Your task to perform on an android device: toggle improve location accuracy Image 0: 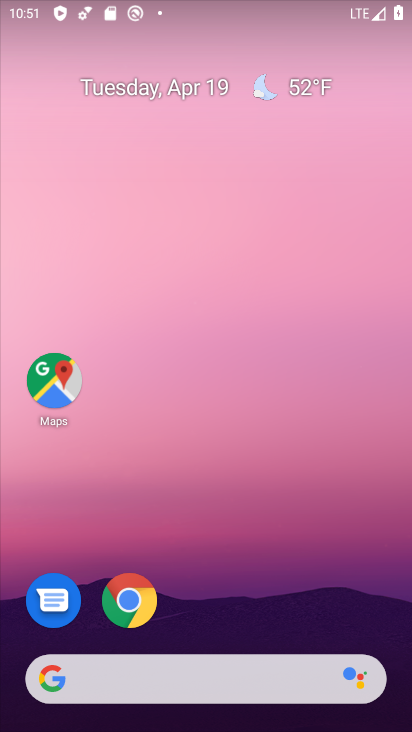
Step 0: drag from (325, 608) to (160, 39)
Your task to perform on an android device: toggle improve location accuracy Image 1: 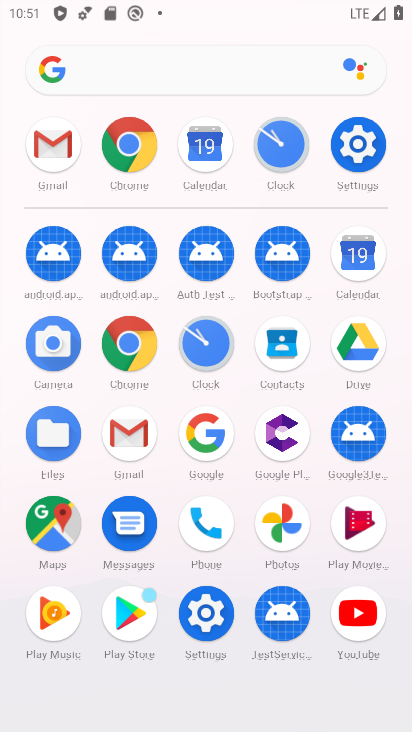
Step 1: click (362, 147)
Your task to perform on an android device: toggle improve location accuracy Image 2: 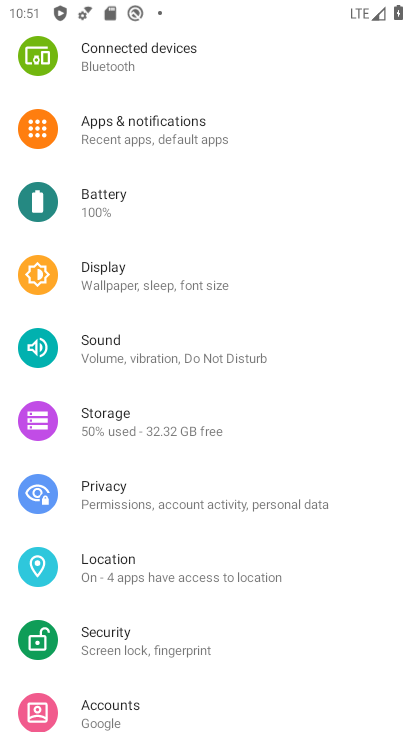
Step 2: click (174, 565)
Your task to perform on an android device: toggle improve location accuracy Image 3: 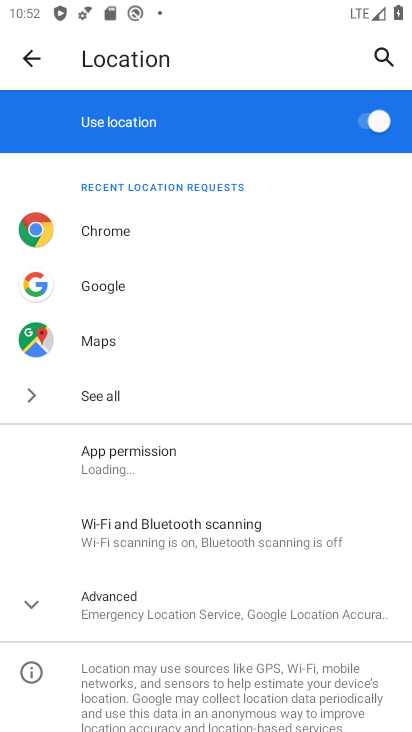
Step 3: click (126, 596)
Your task to perform on an android device: toggle improve location accuracy Image 4: 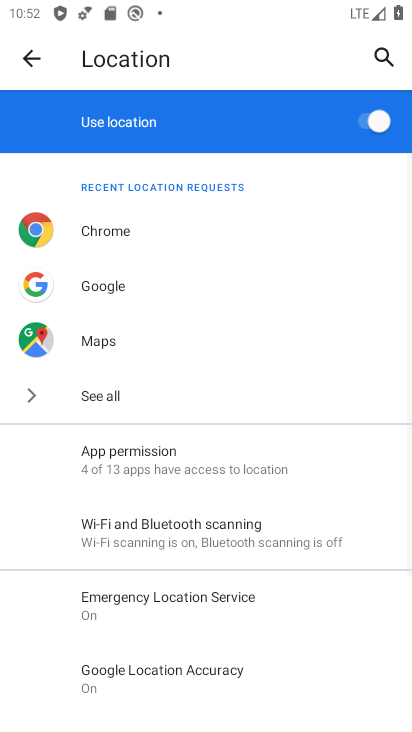
Step 4: click (200, 677)
Your task to perform on an android device: toggle improve location accuracy Image 5: 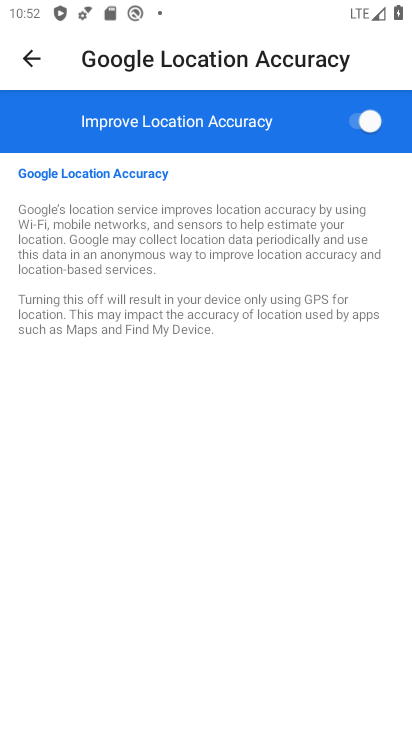
Step 5: click (365, 118)
Your task to perform on an android device: toggle improve location accuracy Image 6: 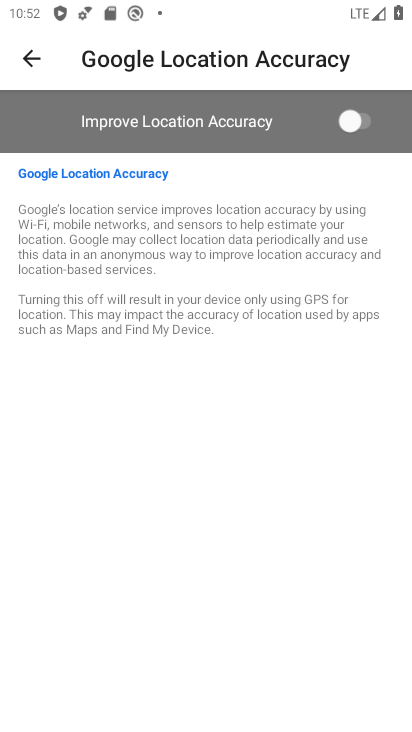
Step 6: task complete